Your task to perform on an android device: turn on javascript in the chrome app Image 0: 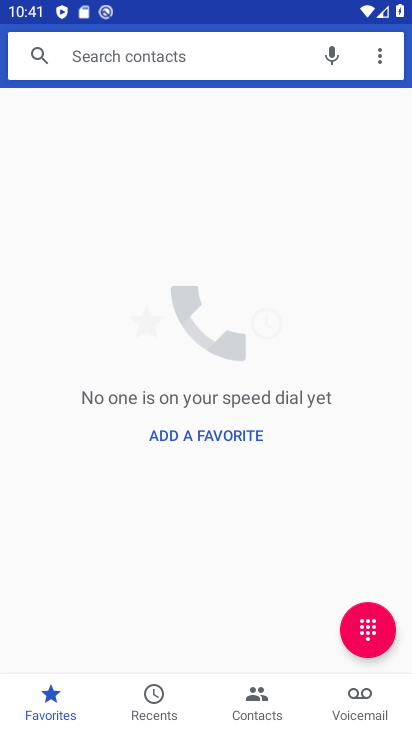
Step 0: press back button
Your task to perform on an android device: turn on javascript in the chrome app Image 1: 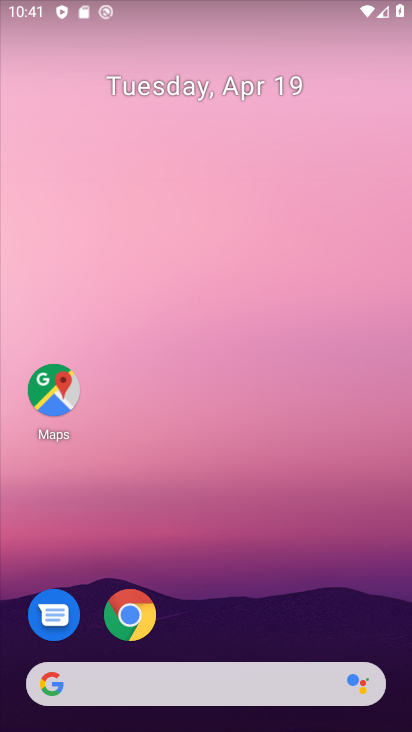
Step 1: drag from (171, 608) to (180, 270)
Your task to perform on an android device: turn on javascript in the chrome app Image 2: 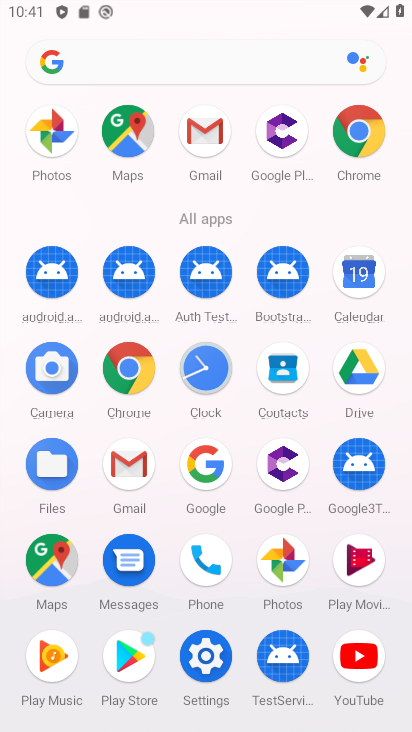
Step 2: click (360, 137)
Your task to perform on an android device: turn on javascript in the chrome app Image 3: 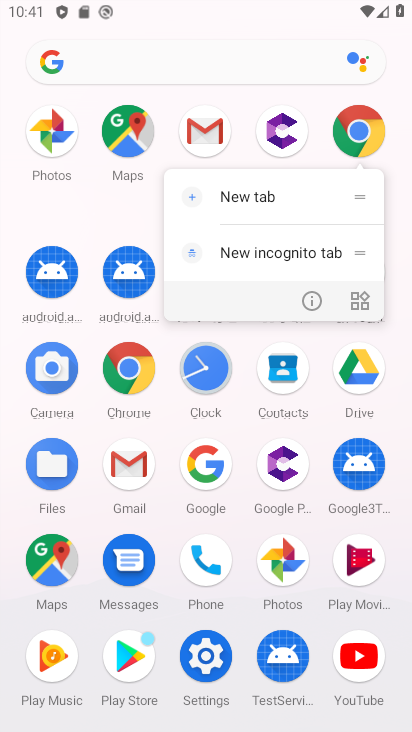
Step 3: click (360, 137)
Your task to perform on an android device: turn on javascript in the chrome app Image 4: 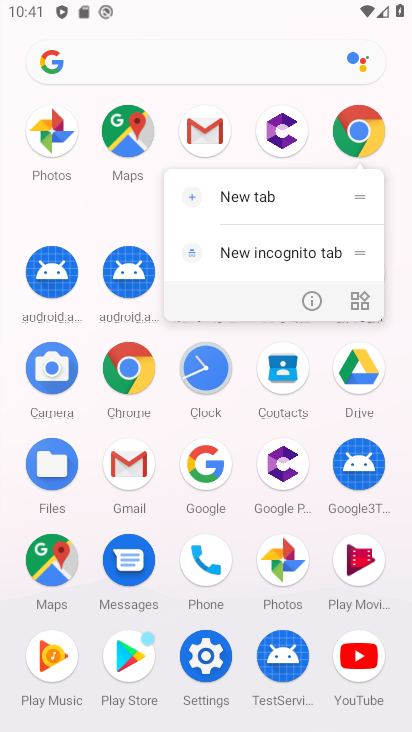
Step 4: click (360, 131)
Your task to perform on an android device: turn on javascript in the chrome app Image 5: 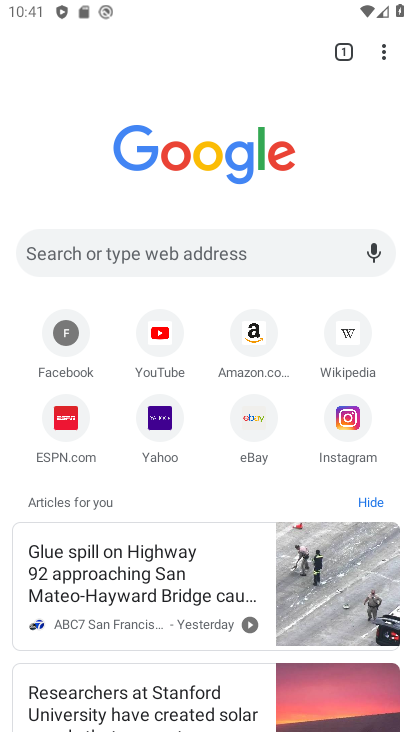
Step 5: click (381, 54)
Your task to perform on an android device: turn on javascript in the chrome app Image 6: 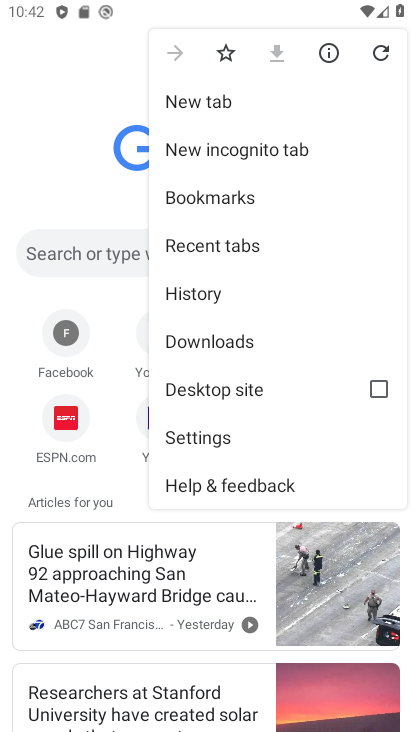
Step 6: click (213, 437)
Your task to perform on an android device: turn on javascript in the chrome app Image 7: 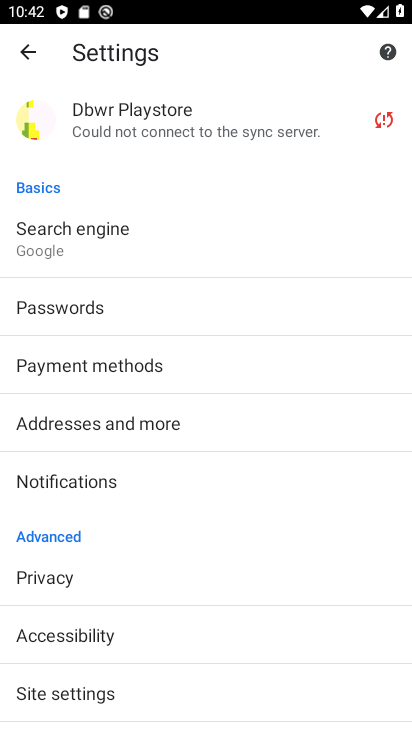
Step 7: drag from (160, 699) to (165, 433)
Your task to perform on an android device: turn on javascript in the chrome app Image 8: 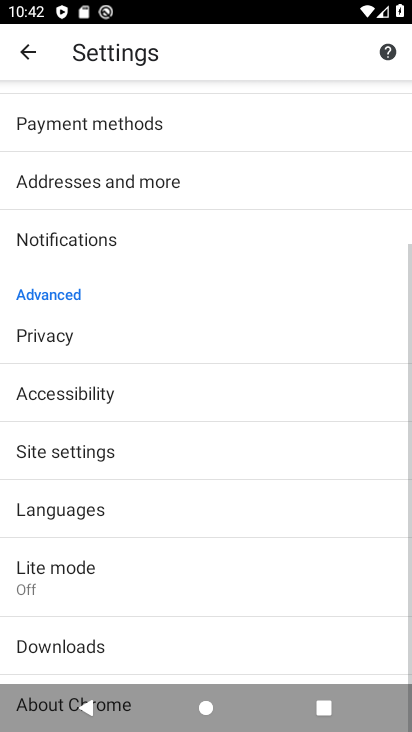
Step 8: click (72, 444)
Your task to perform on an android device: turn on javascript in the chrome app Image 9: 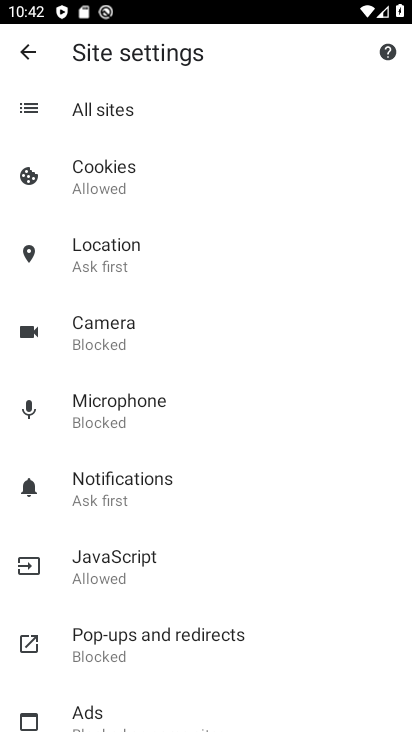
Step 9: click (121, 571)
Your task to perform on an android device: turn on javascript in the chrome app Image 10: 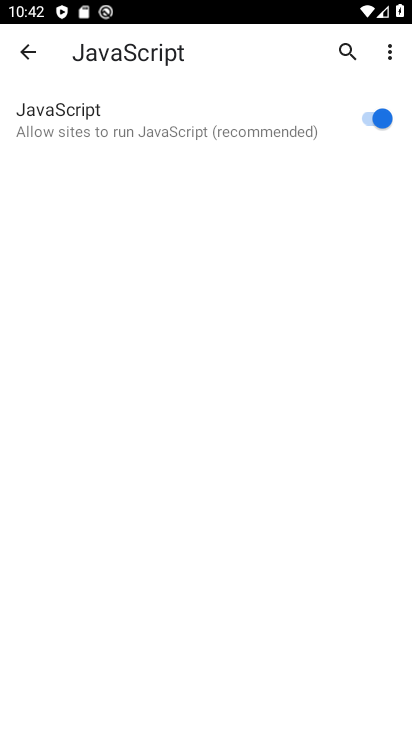
Step 10: task complete